Your task to perform on an android device: Go to Amazon Image 0: 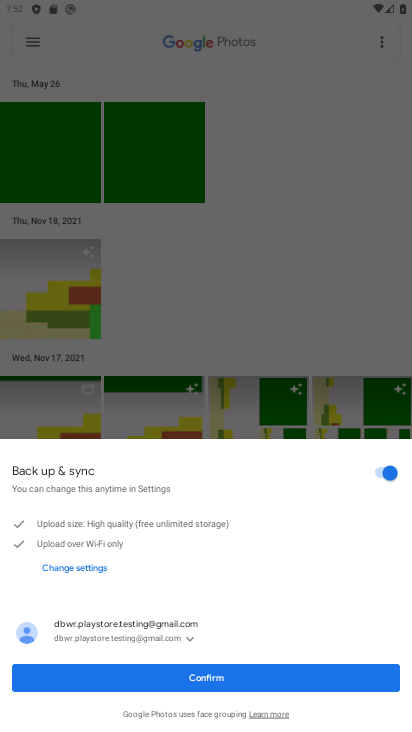
Step 0: press home button
Your task to perform on an android device: Go to Amazon Image 1: 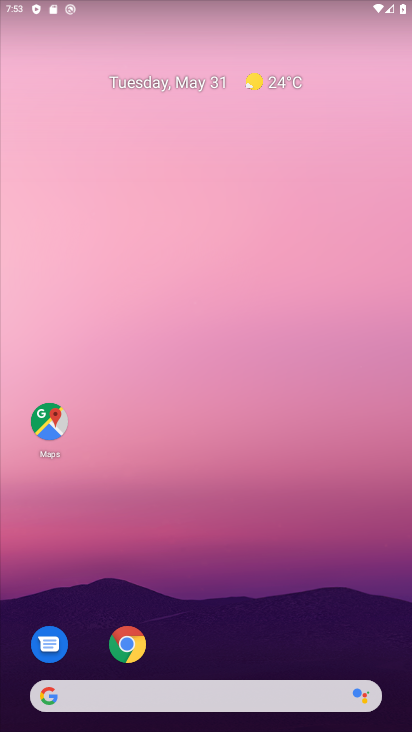
Step 1: click (129, 649)
Your task to perform on an android device: Go to Amazon Image 2: 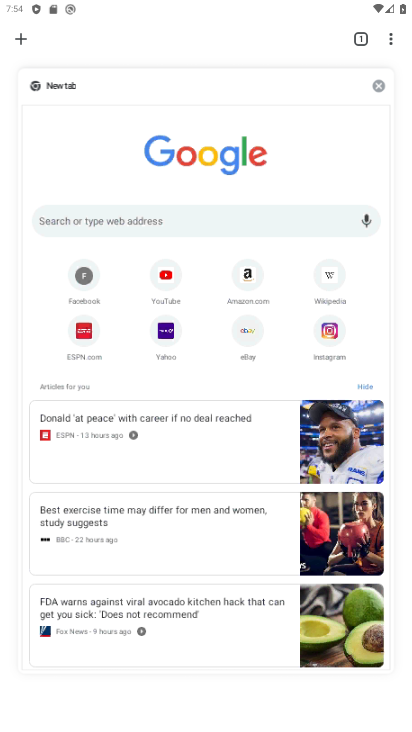
Step 2: click (127, 168)
Your task to perform on an android device: Go to Amazon Image 3: 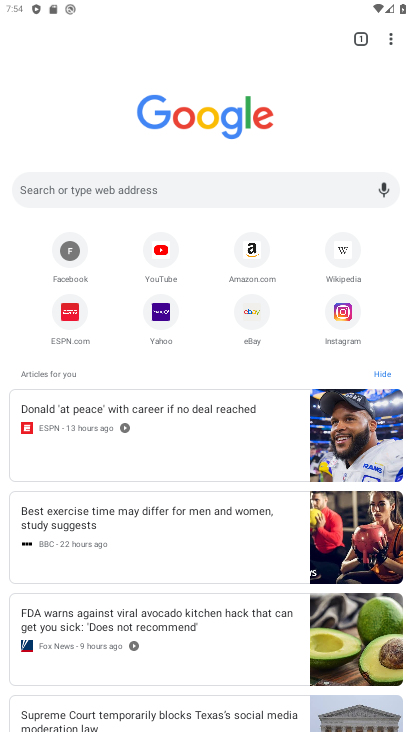
Step 3: click (69, 196)
Your task to perform on an android device: Go to Amazon Image 4: 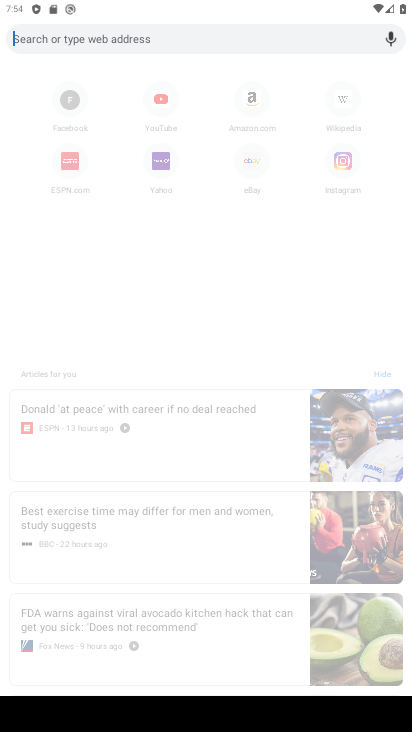
Step 4: type "Amazon"
Your task to perform on an android device: Go to Amazon Image 5: 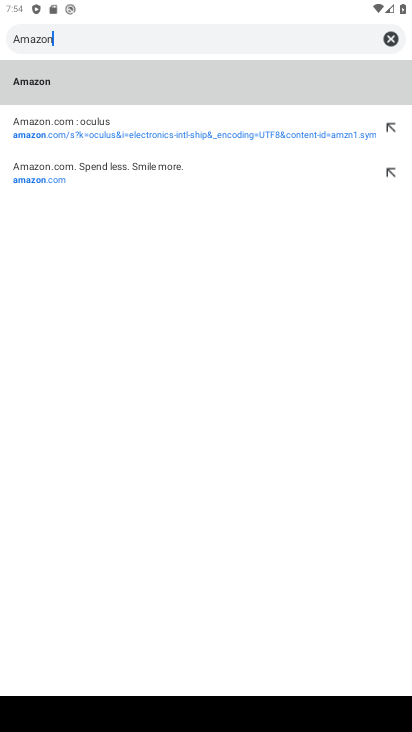
Step 5: click (192, 81)
Your task to perform on an android device: Go to Amazon Image 6: 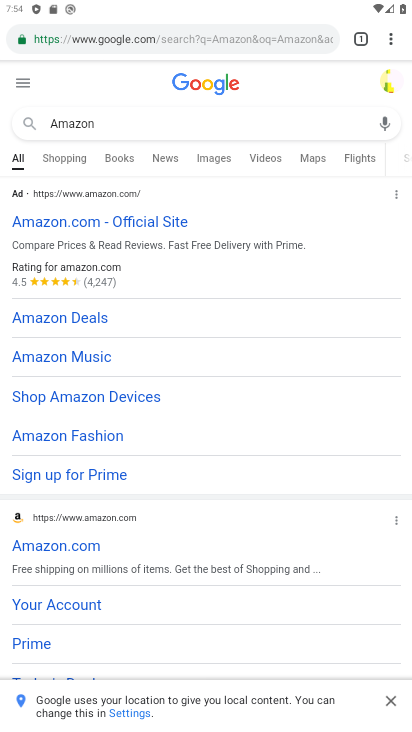
Step 6: task complete